Your task to perform on an android device: remove spam from my inbox in the gmail app Image 0: 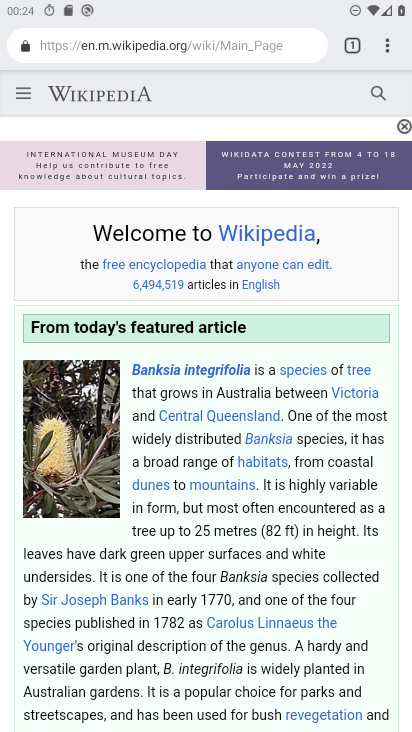
Step 0: press home button
Your task to perform on an android device: remove spam from my inbox in the gmail app Image 1: 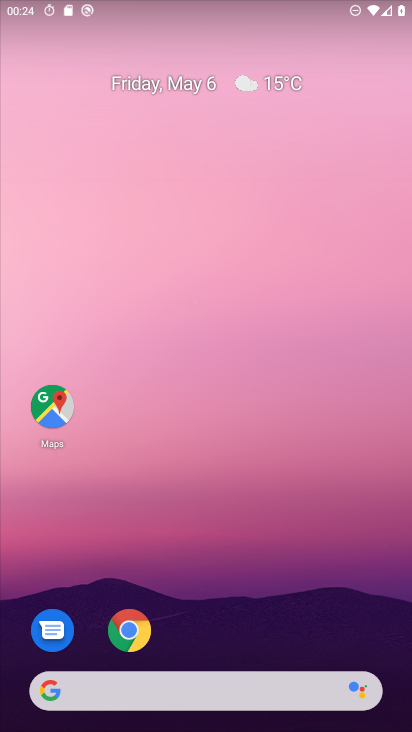
Step 1: drag from (316, 607) to (243, 14)
Your task to perform on an android device: remove spam from my inbox in the gmail app Image 2: 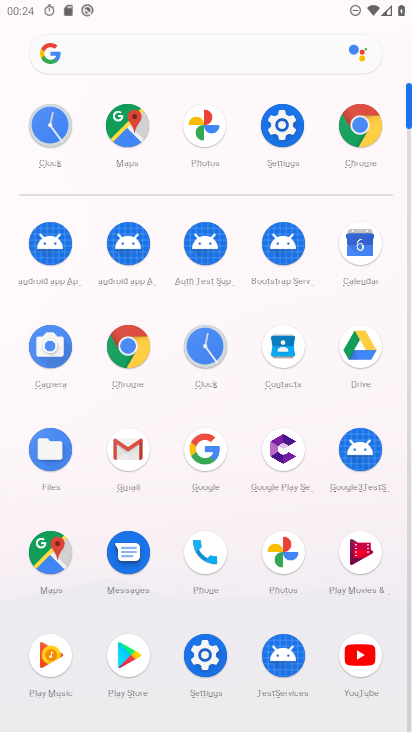
Step 2: click (139, 468)
Your task to perform on an android device: remove spam from my inbox in the gmail app Image 3: 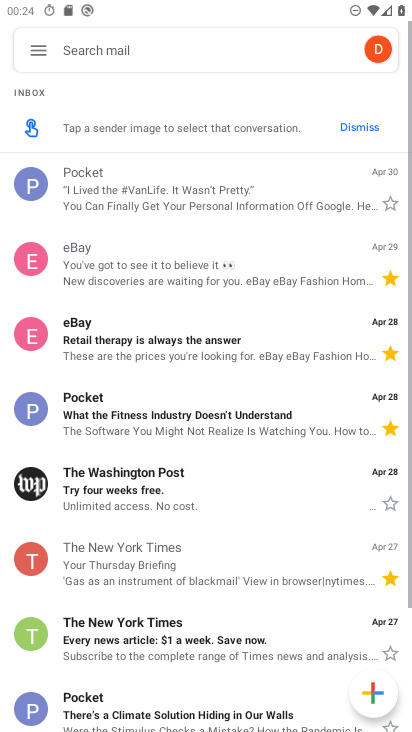
Step 3: click (31, 39)
Your task to perform on an android device: remove spam from my inbox in the gmail app Image 4: 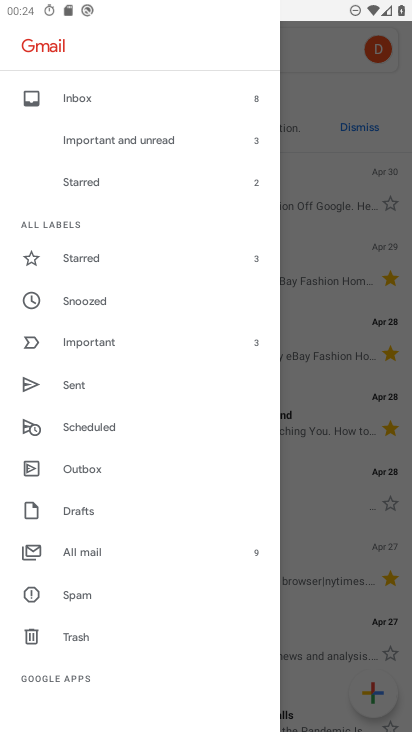
Step 4: click (84, 612)
Your task to perform on an android device: remove spam from my inbox in the gmail app Image 5: 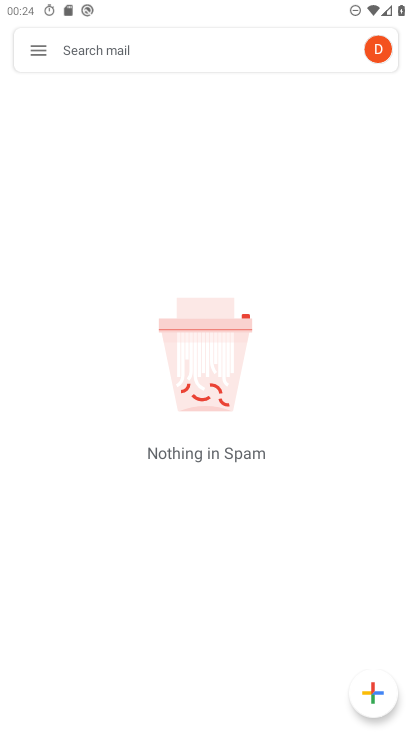
Step 5: task complete